Your task to perform on an android device: Clear the cart on bestbuy.com. Add usb-a to the cart on bestbuy.com, then select checkout. Image 0: 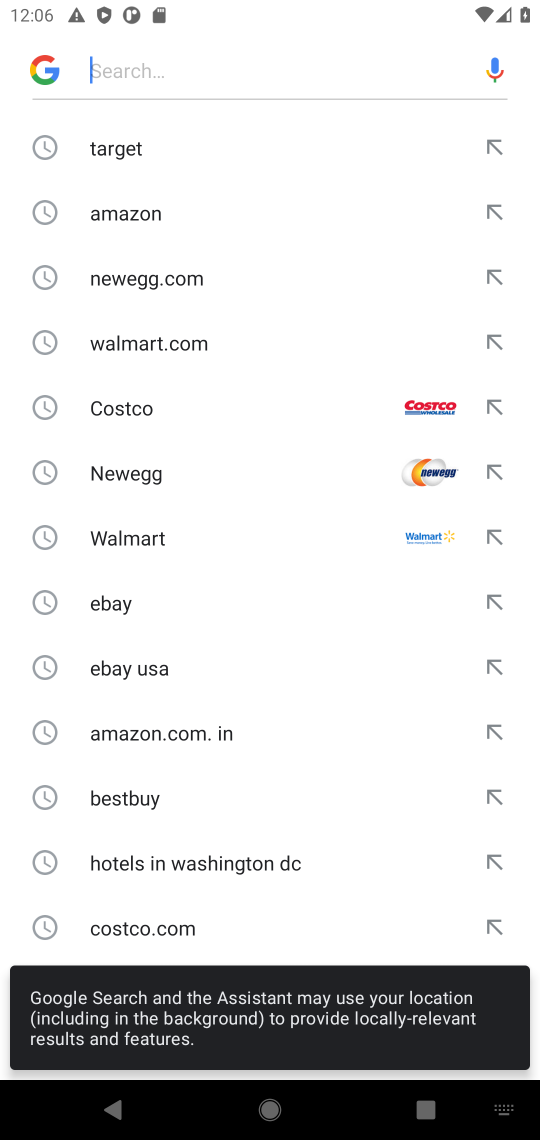
Step 0: press home button
Your task to perform on an android device: Clear the cart on bestbuy.com. Add usb-a to the cart on bestbuy.com, then select checkout. Image 1: 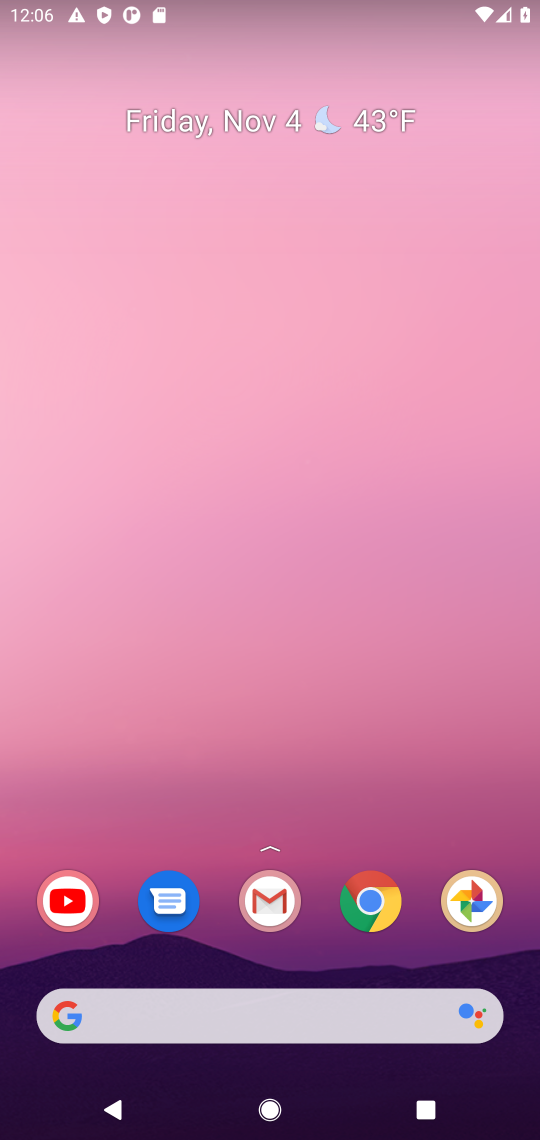
Step 1: click (368, 903)
Your task to perform on an android device: Clear the cart on bestbuy.com. Add usb-a to the cart on bestbuy.com, then select checkout. Image 2: 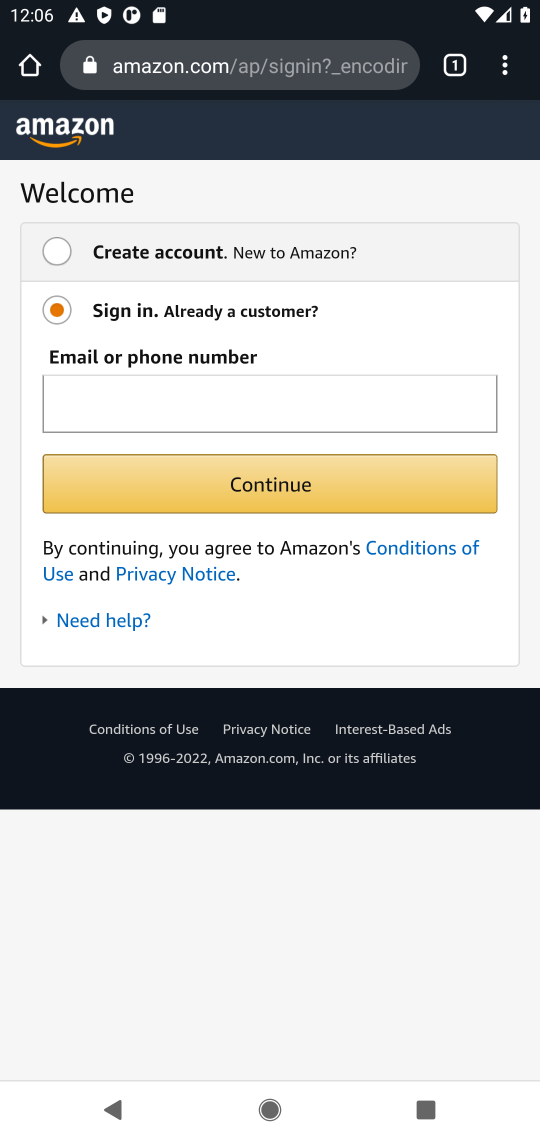
Step 2: click (349, 61)
Your task to perform on an android device: Clear the cart on bestbuy.com. Add usb-a to the cart on bestbuy.com, then select checkout. Image 3: 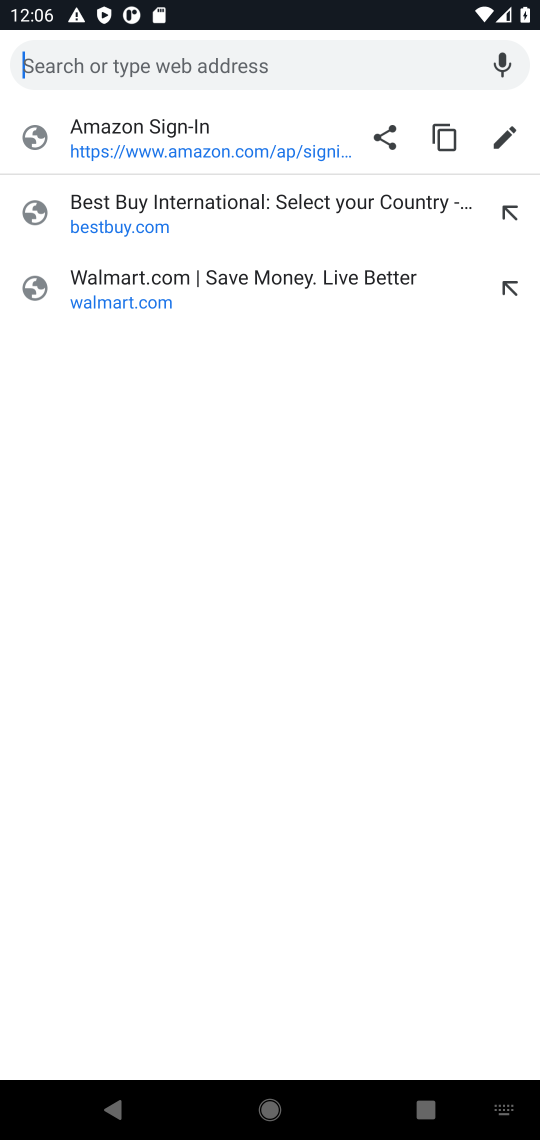
Step 3: click (156, 197)
Your task to perform on an android device: Clear the cart on bestbuy.com. Add usb-a to the cart on bestbuy.com, then select checkout. Image 4: 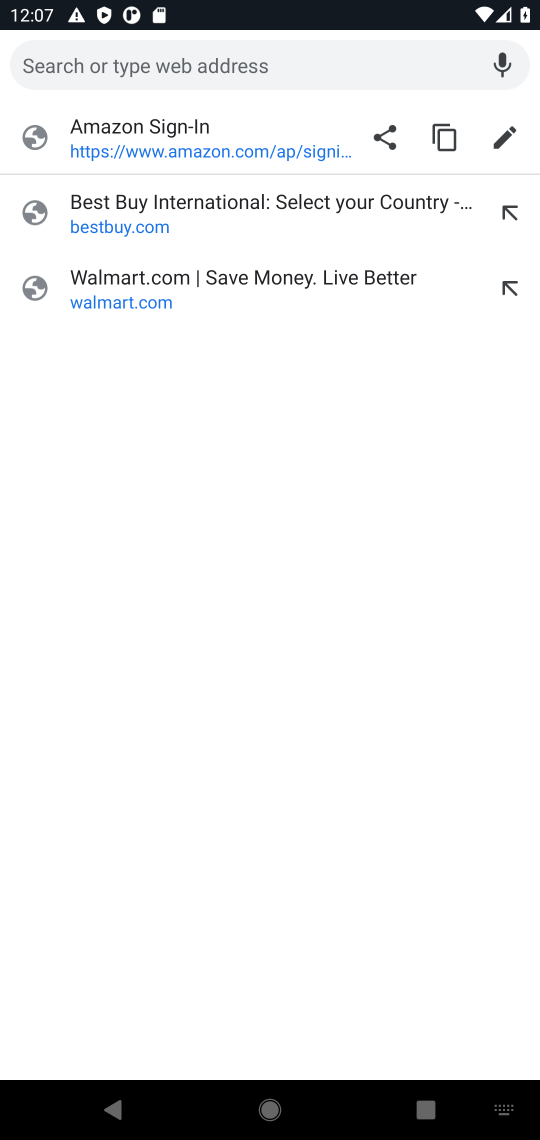
Step 4: click (196, 192)
Your task to perform on an android device: Clear the cart on bestbuy.com. Add usb-a to the cart on bestbuy.com, then select checkout. Image 5: 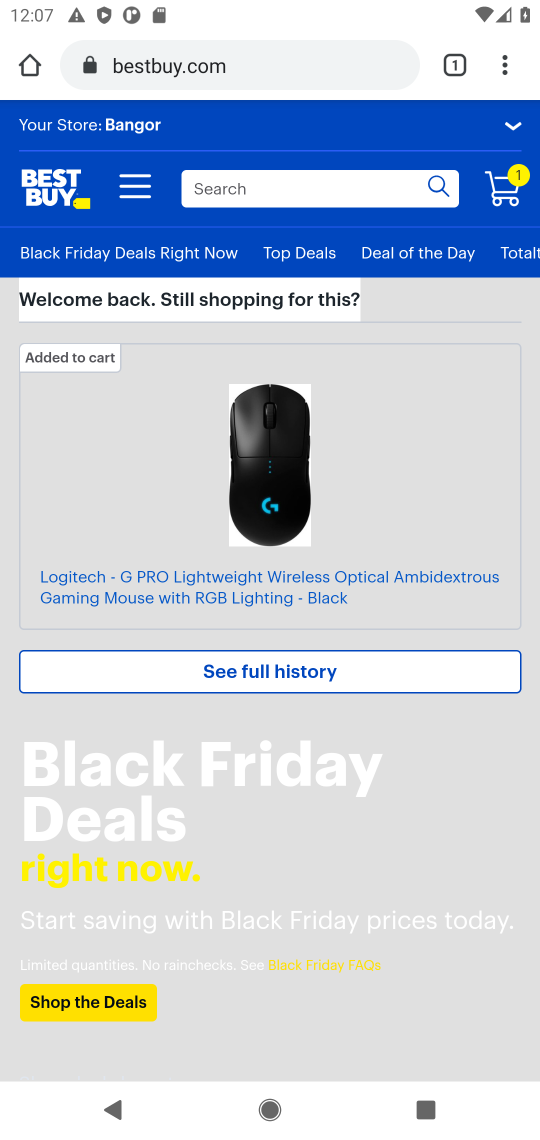
Step 5: click (501, 192)
Your task to perform on an android device: Clear the cart on bestbuy.com. Add usb-a to the cart on bestbuy.com, then select checkout. Image 6: 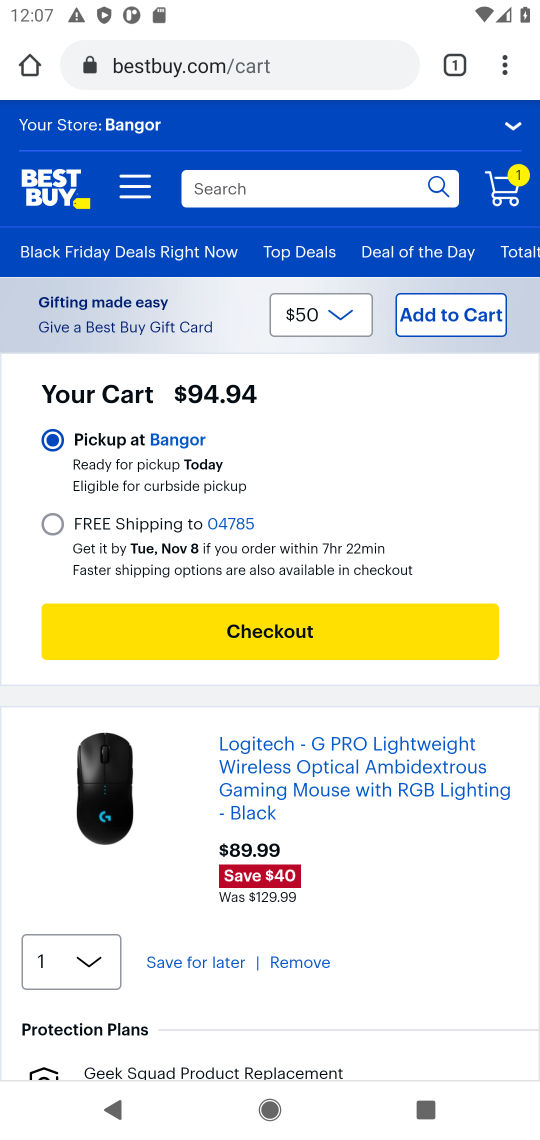
Step 6: click (286, 962)
Your task to perform on an android device: Clear the cart on bestbuy.com. Add usb-a to the cart on bestbuy.com, then select checkout. Image 7: 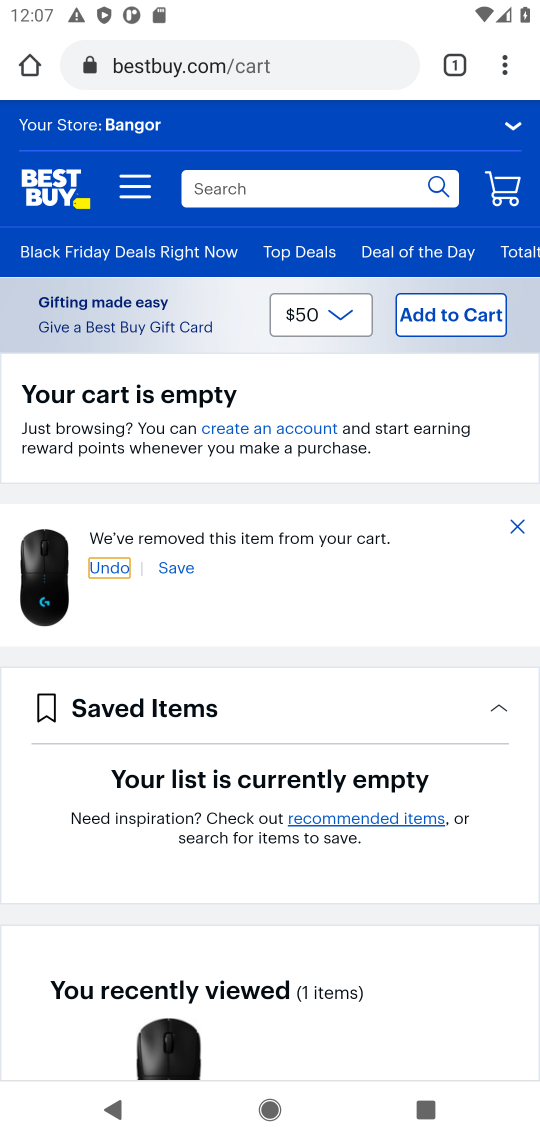
Step 7: click (332, 185)
Your task to perform on an android device: Clear the cart on bestbuy.com. Add usb-a to the cart on bestbuy.com, then select checkout. Image 8: 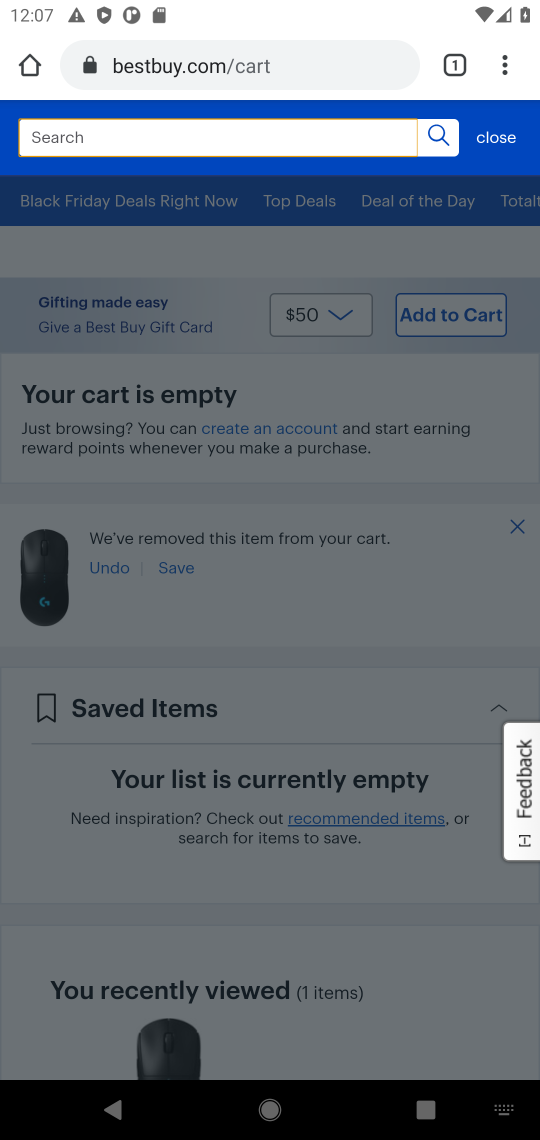
Step 8: type "usb-a"
Your task to perform on an android device: Clear the cart on bestbuy.com. Add usb-a to the cart on bestbuy.com, then select checkout. Image 9: 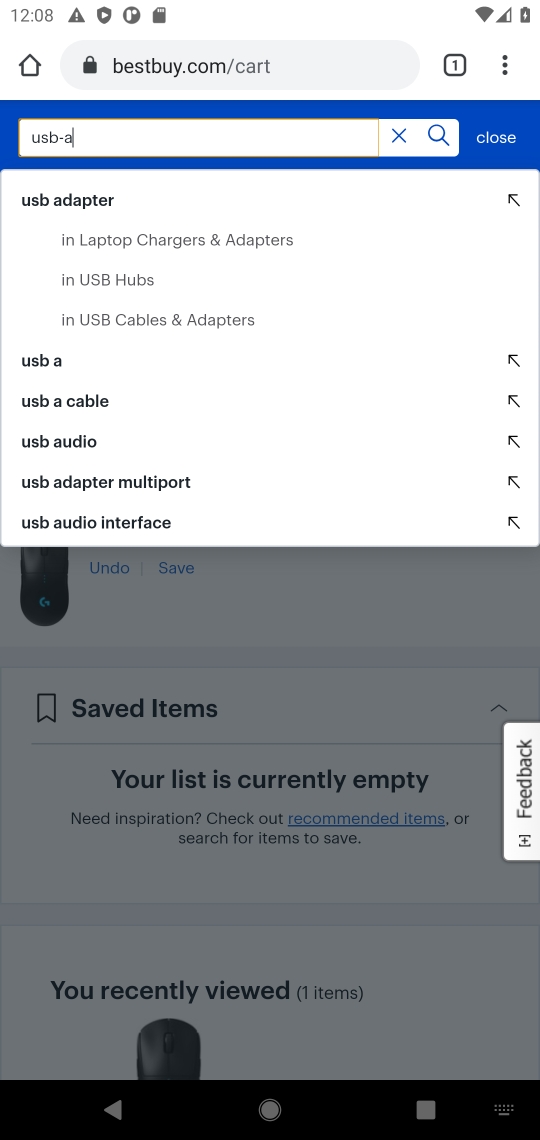
Step 9: click (50, 364)
Your task to perform on an android device: Clear the cart on bestbuy.com. Add usb-a to the cart on bestbuy.com, then select checkout. Image 10: 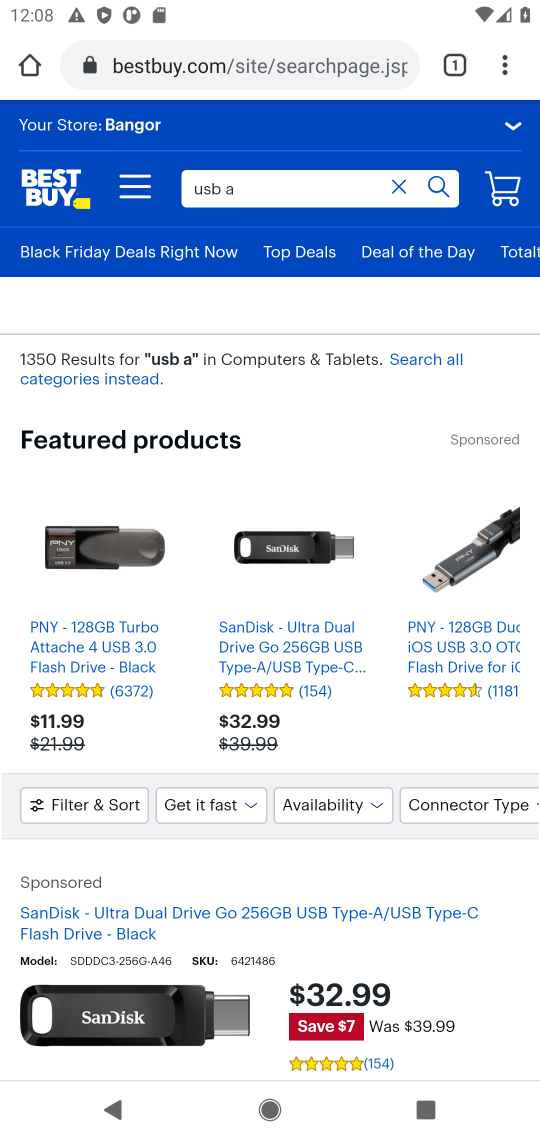
Step 10: task complete